Your task to perform on an android device: turn off notifications in google photos Image 0: 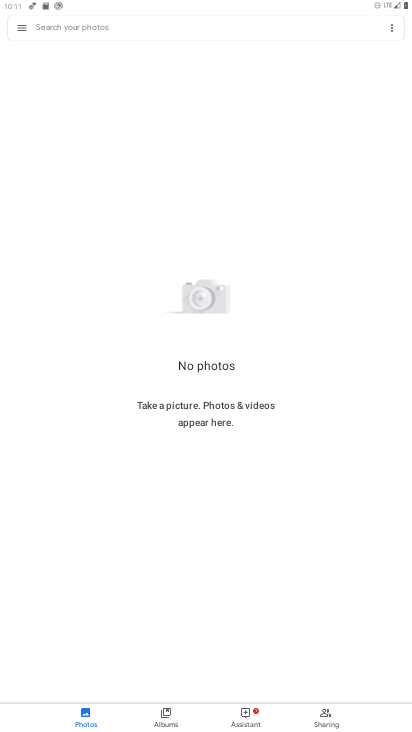
Step 0: press home button
Your task to perform on an android device: turn off notifications in google photos Image 1: 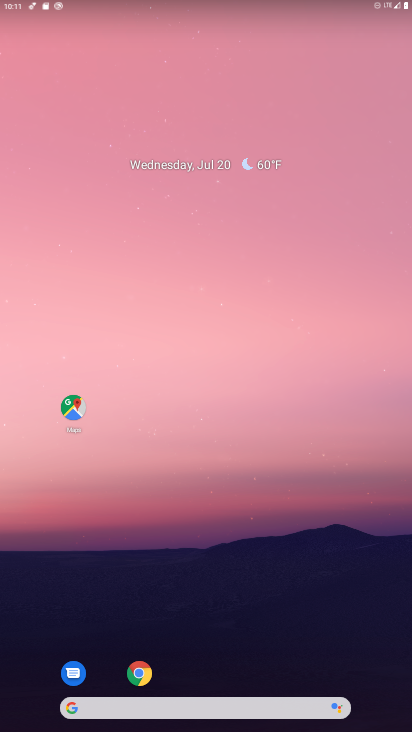
Step 1: drag from (205, 441) to (233, 121)
Your task to perform on an android device: turn off notifications in google photos Image 2: 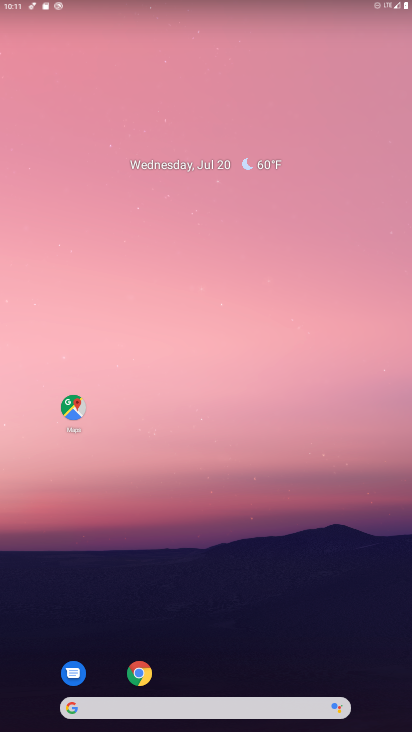
Step 2: drag from (191, 673) to (201, 188)
Your task to perform on an android device: turn off notifications in google photos Image 3: 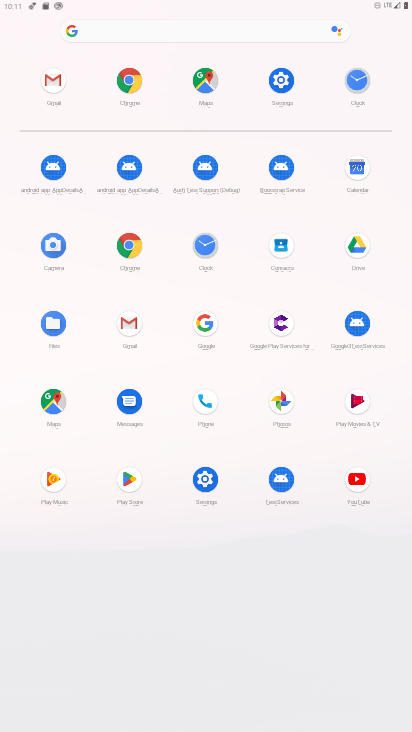
Step 3: click (289, 409)
Your task to perform on an android device: turn off notifications in google photos Image 4: 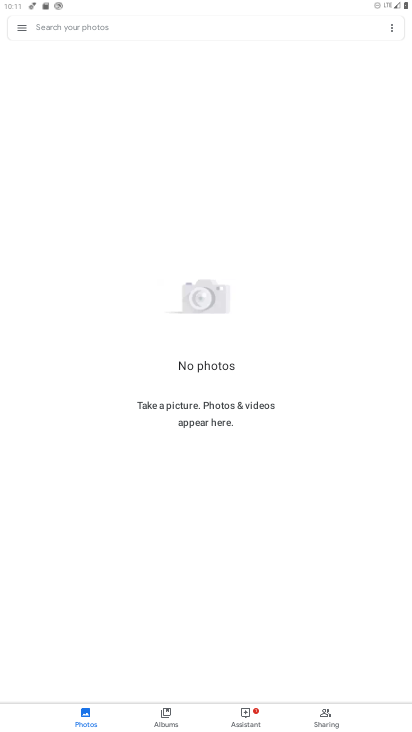
Step 4: click (17, 29)
Your task to perform on an android device: turn off notifications in google photos Image 5: 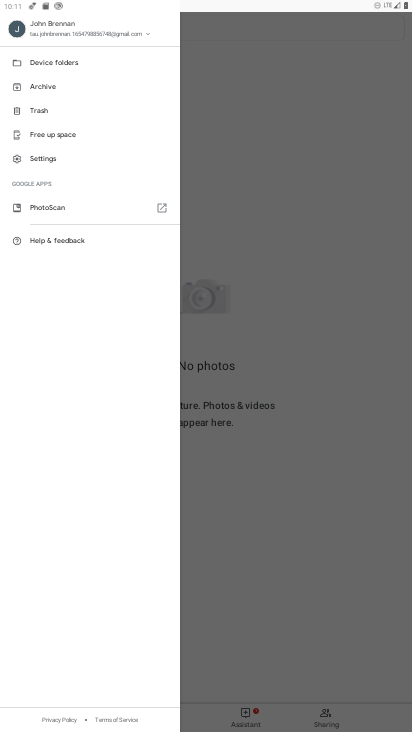
Step 5: click (44, 157)
Your task to perform on an android device: turn off notifications in google photos Image 6: 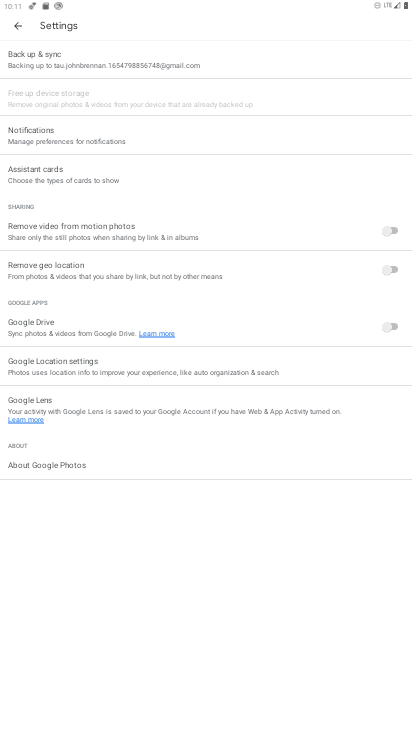
Step 6: click (42, 134)
Your task to perform on an android device: turn off notifications in google photos Image 7: 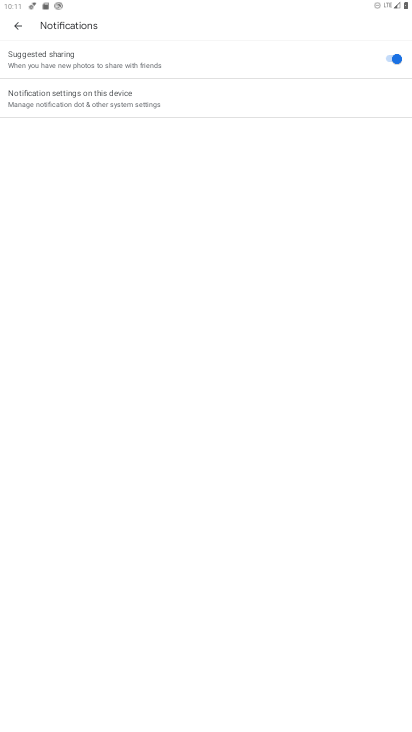
Step 7: click (383, 55)
Your task to perform on an android device: turn off notifications in google photos Image 8: 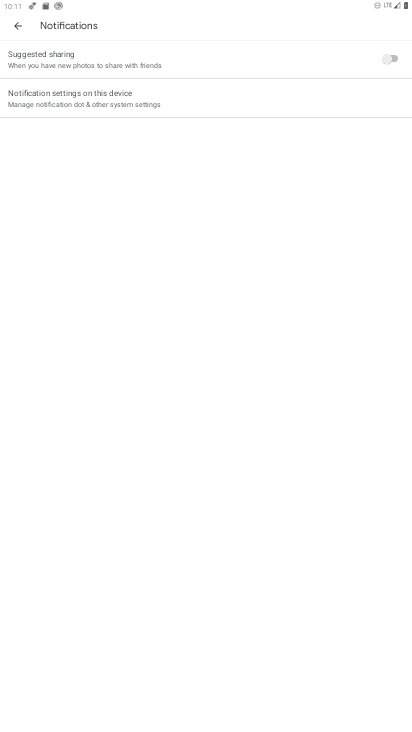
Step 8: task complete